Your task to perform on an android device: Go to Google maps Image 0: 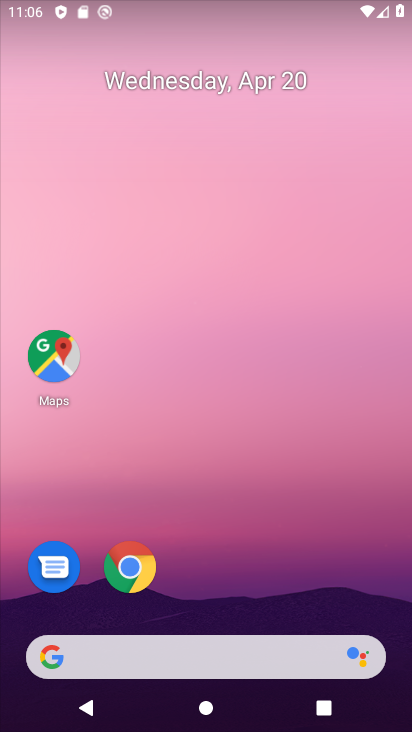
Step 0: drag from (313, 602) to (284, 109)
Your task to perform on an android device: Go to Google maps Image 1: 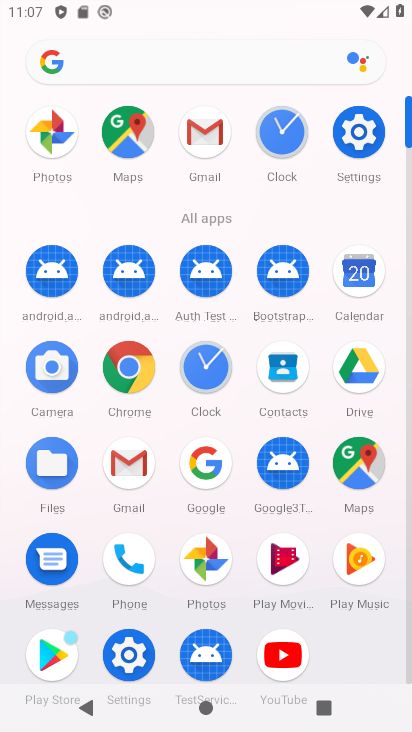
Step 1: click (366, 474)
Your task to perform on an android device: Go to Google maps Image 2: 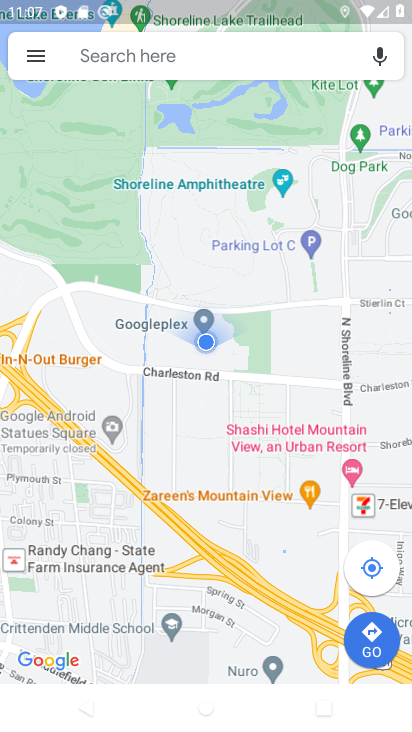
Step 2: task complete